Your task to perform on an android device: remove spam from my inbox in the gmail app Image 0: 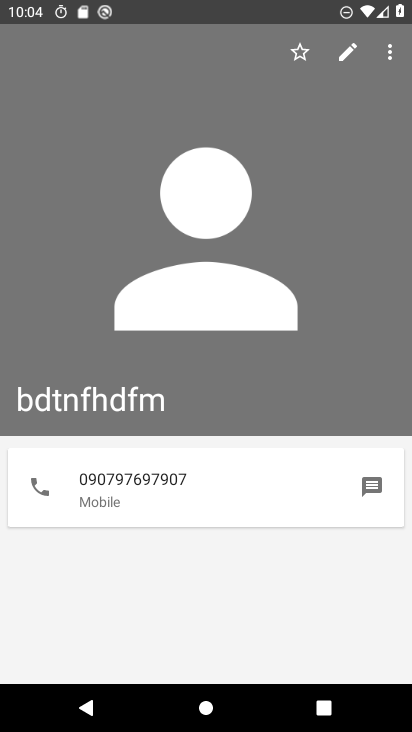
Step 0: press home button
Your task to perform on an android device: remove spam from my inbox in the gmail app Image 1: 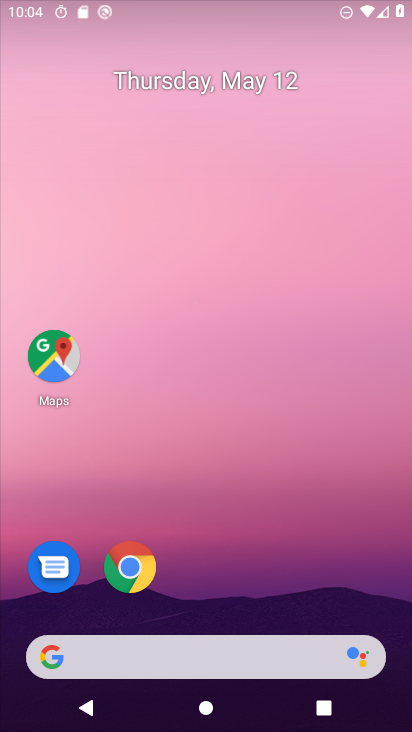
Step 1: drag from (268, 564) to (333, 60)
Your task to perform on an android device: remove spam from my inbox in the gmail app Image 2: 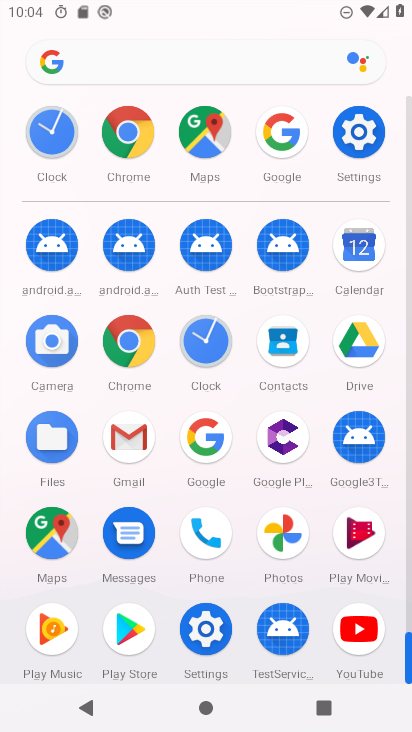
Step 2: click (134, 449)
Your task to perform on an android device: remove spam from my inbox in the gmail app Image 3: 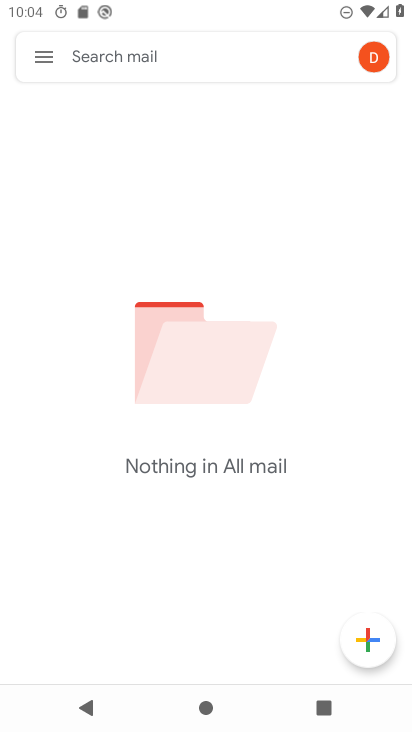
Step 3: click (42, 60)
Your task to perform on an android device: remove spam from my inbox in the gmail app Image 4: 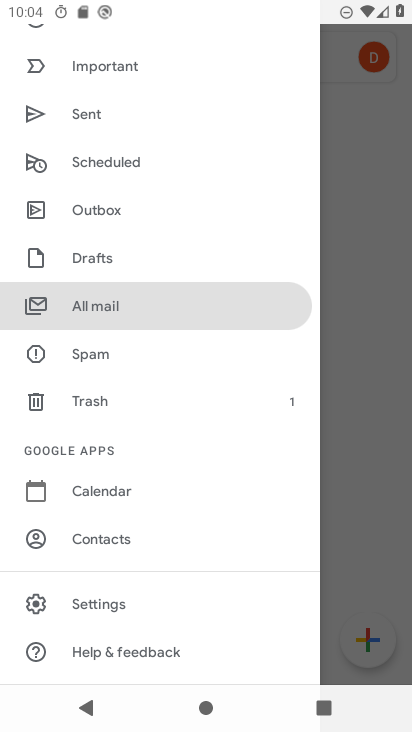
Step 4: click (157, 352)
Your task to perform on an android device: remove spam from my inbox in the gmail app Image 5: 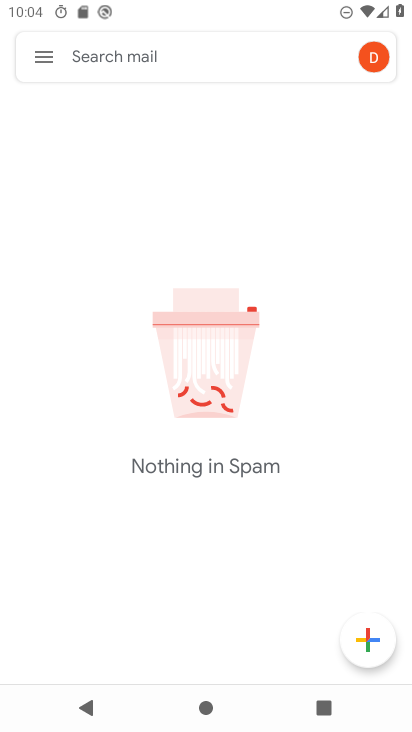
Step 5: task complete